Your task to perform on an android device: open app "Booking.com: Hotels and more" Image 0: 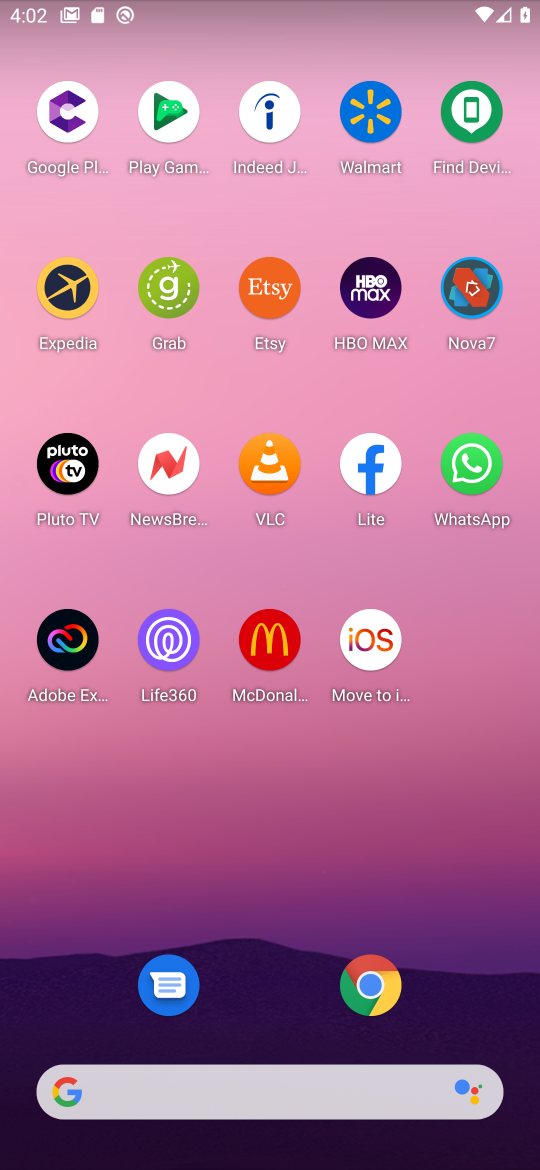
Step 0: drag from (296, 79) to (404, 122)
Your task to perform on an android device: open app "Booking.com: Hotels and more" Image 1: 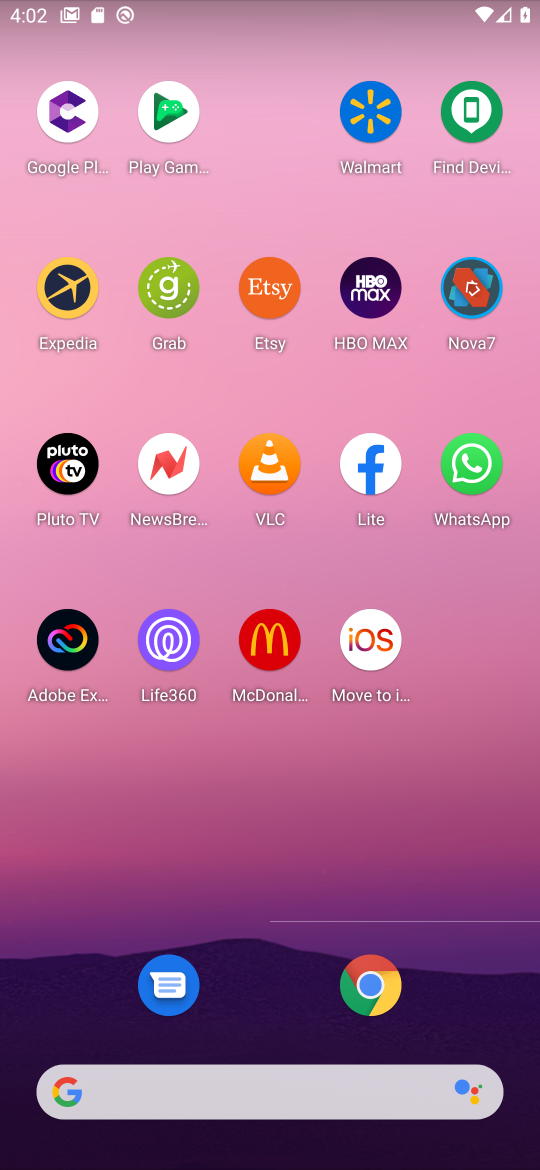
Step 1: click (230, 1022)
Your task to perform on an android device: open app "Booking.com: Hotels and more" Image 2: 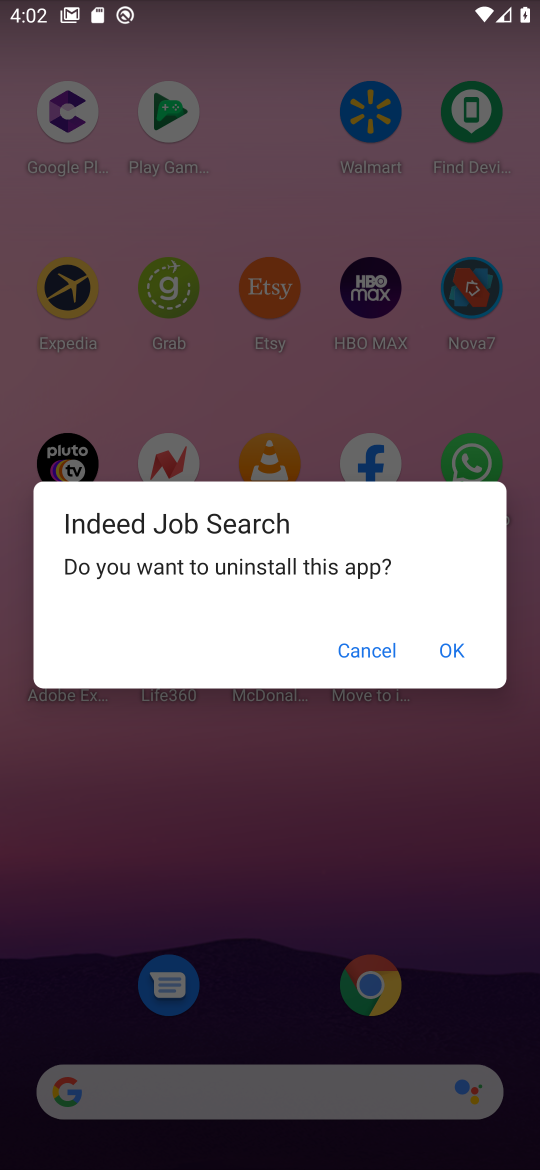
Step 2: click (442, 654)
Your task to perform on an android device: open app "Booking.com: Hotels and more" Image 3: 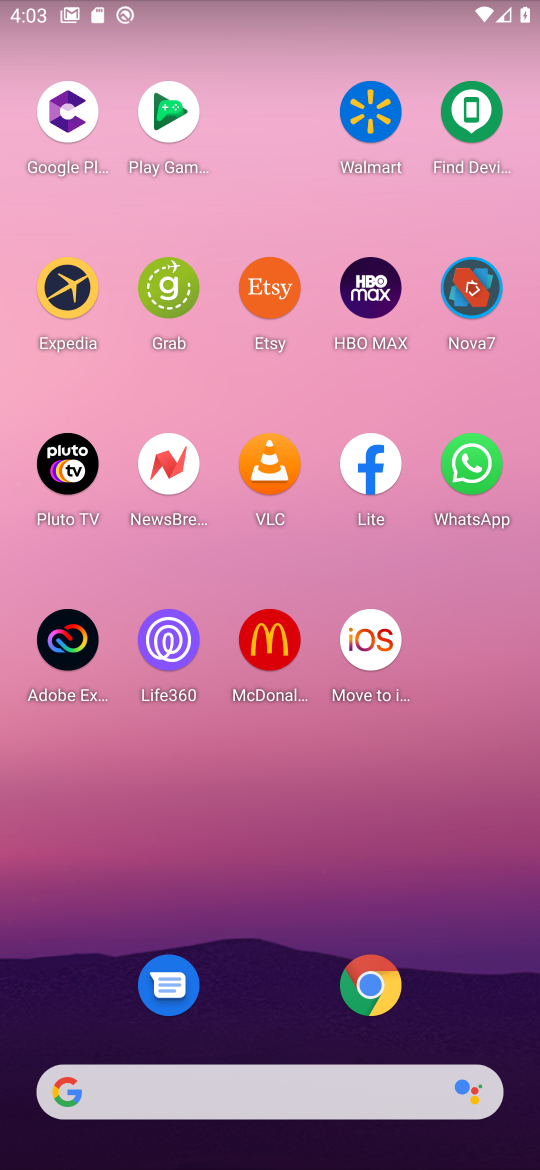
Step 3: drag from (251, 221) to (283, 52)
Your task to perform on an android device: open app "Booking.com: Hotels and more" Image 4: 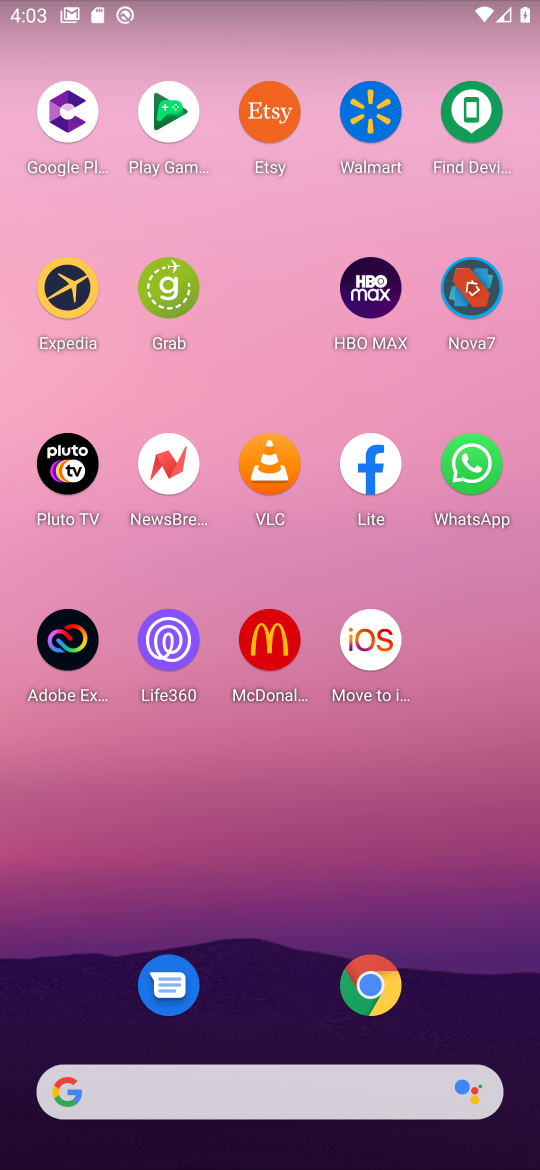
Step 4: drag from (244, 853) to (259, 125)
Your task to perform on an android device: open app "Booking.com: Hotels and more" Image 5: 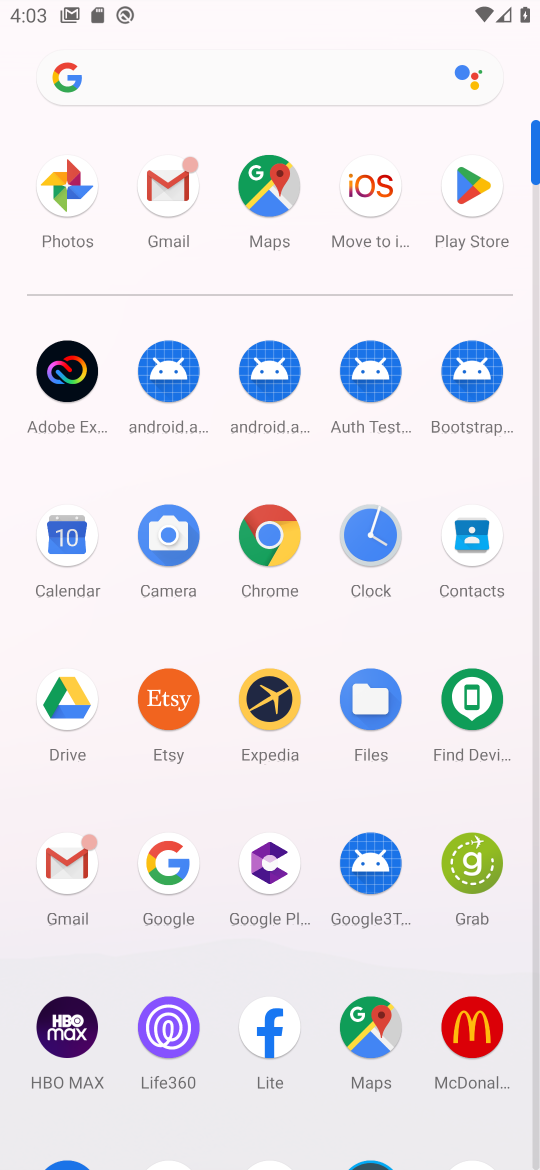
Step 5: click (460, 197)
Your task to perform on an android device: open app "Booking.com: Hotels and more" Image 6: 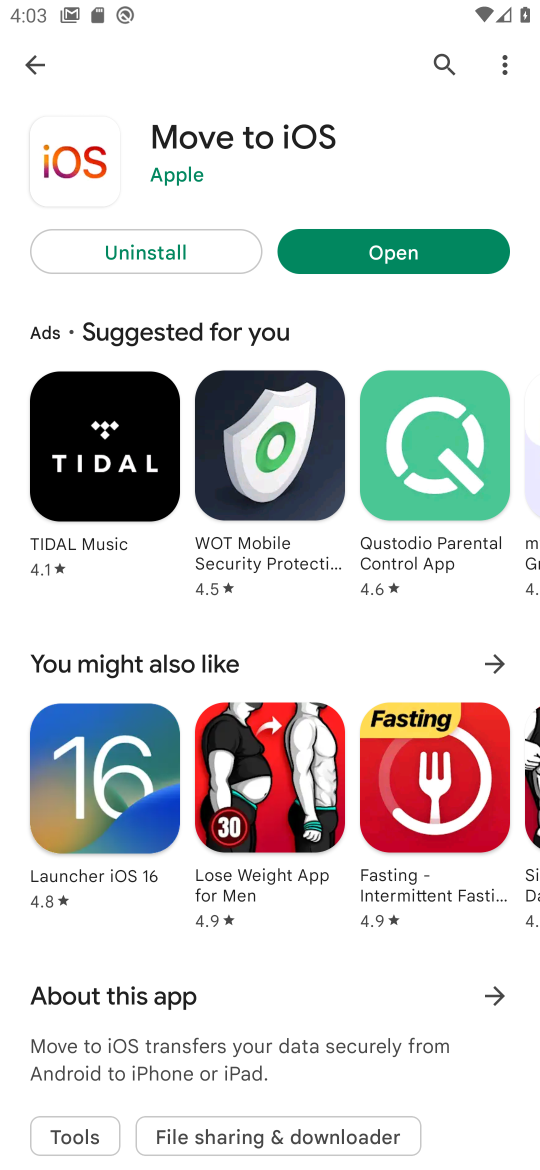
Step 6: click (29, 63)
Your task to perform on an android device: open app "Booking.com: Hotels and more" Image 7: 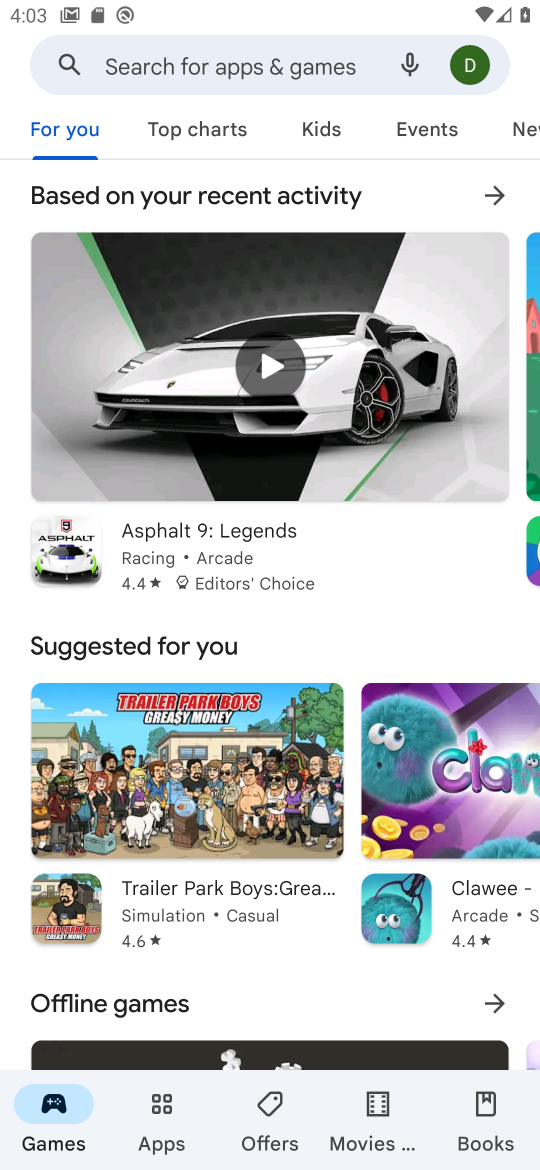
Step 7: click (158, 61)
Your task to perform on an android device: open app "Booking.com: Hotels and more" Image 8: 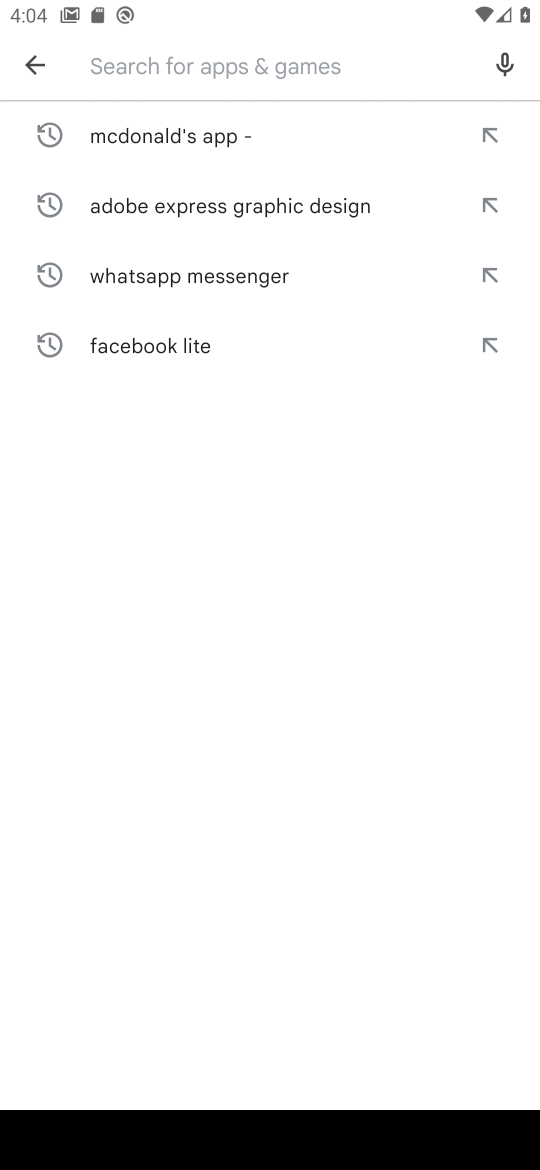
Step 8: type "Booking.com: Hotels and more"
Your task to perform on an android device: open app "Booking.com: Hotels and more" Image 9: 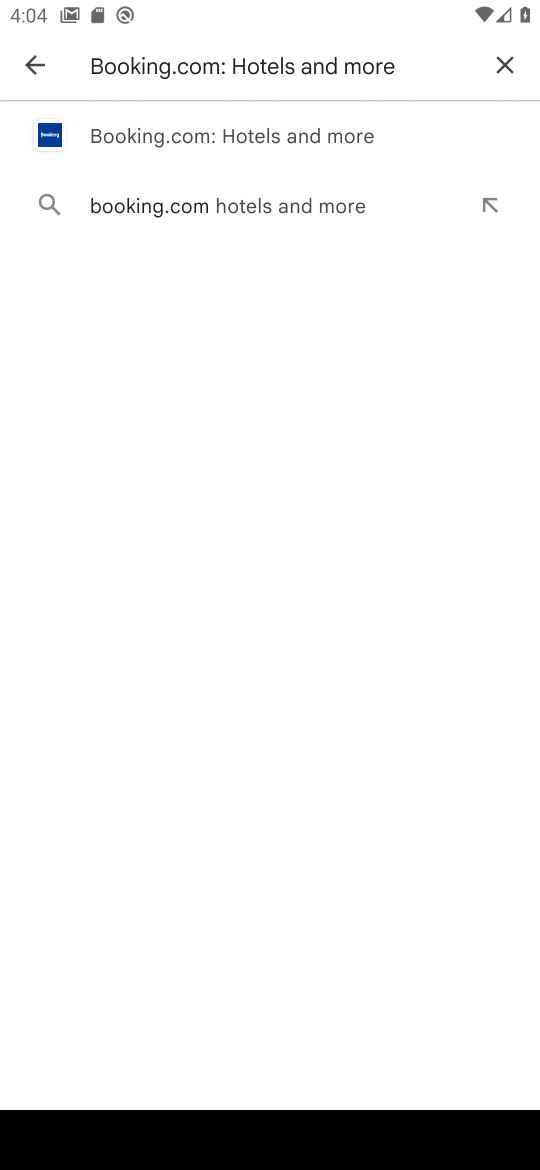
Step 9: click (209, 137)
Your task to perform on an android device: open app "Booking.com: Hotels and more" Image 10: 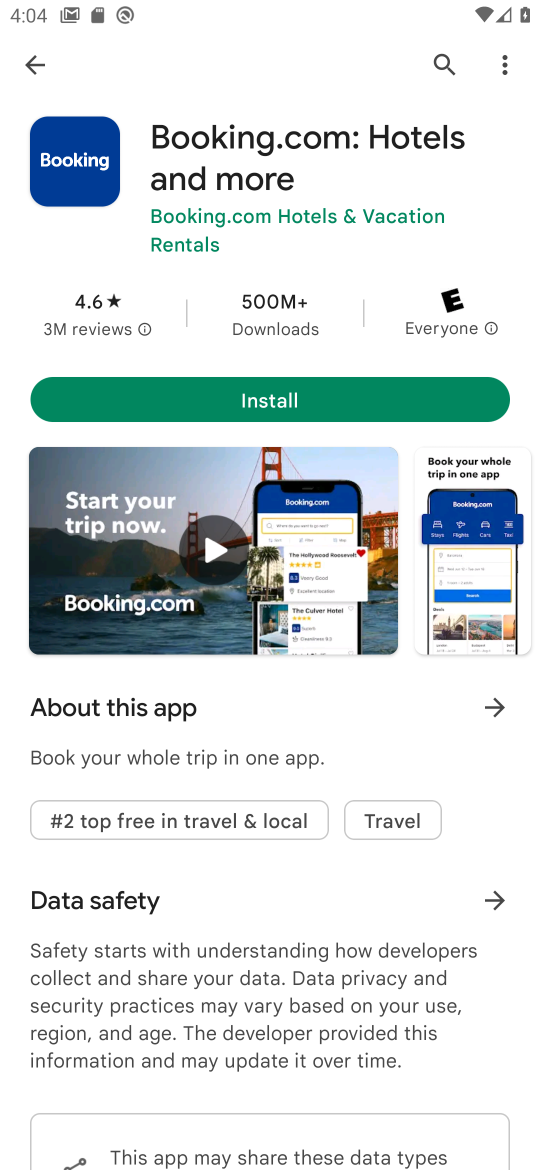
Step 10: click (289, 396)
Your task to perform on an android device: open app "Booking.com: Hotels and more" Image 11: 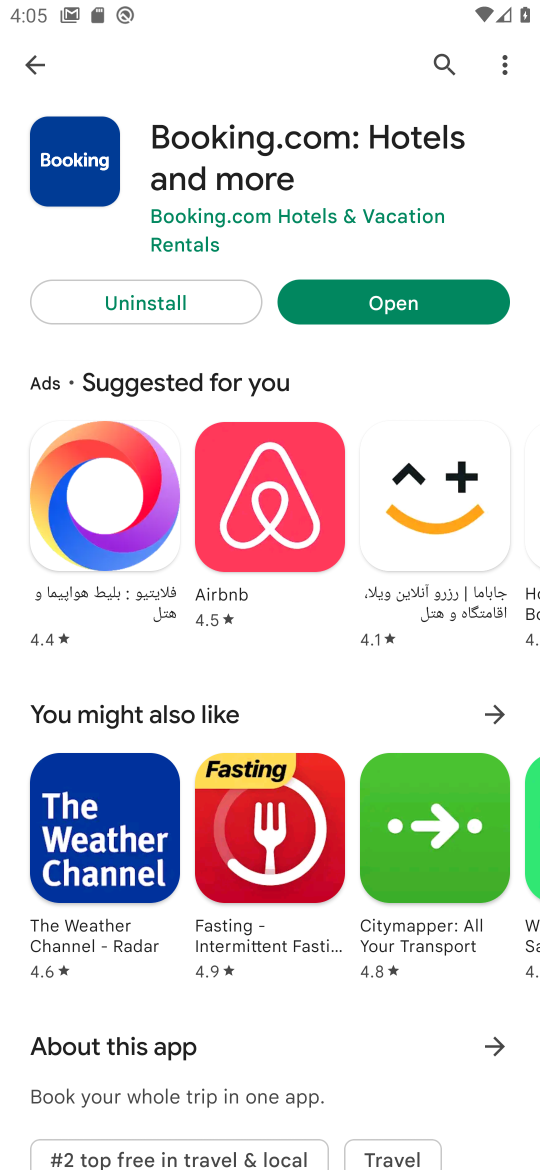
Step 11: click (401, 308)
Your task to perform on an android device: open app "Booking.com: Hotels and more" Image 12: 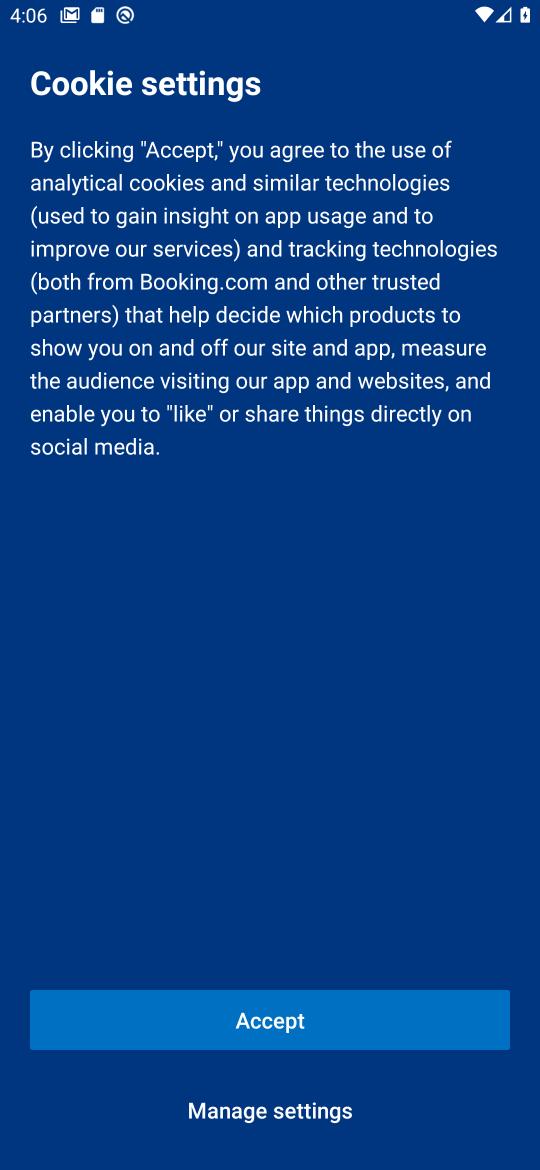
Step 12: task complete